Your task to perform on an android device: toggle improve location accuracy Image 0: 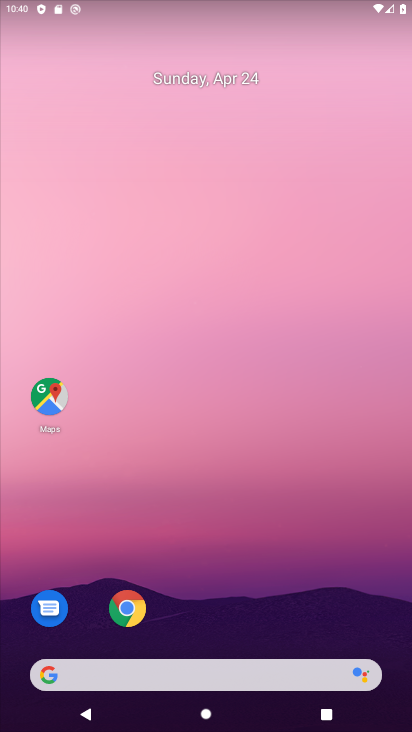
Step 0: drag from (392, 635) to (332, 76)
Your task to perform on an android device: toggle improve location accuracy Image 1: 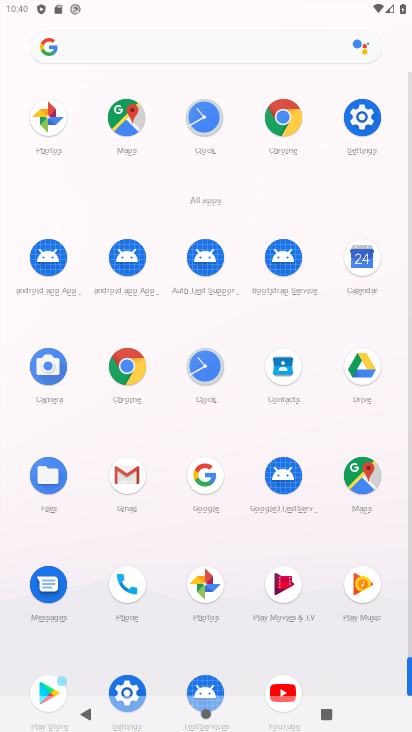
Step 1: drag from (407, 643) to (410, 595)
Your task to perform on an android device: toggle improve location accuracy Image 2: 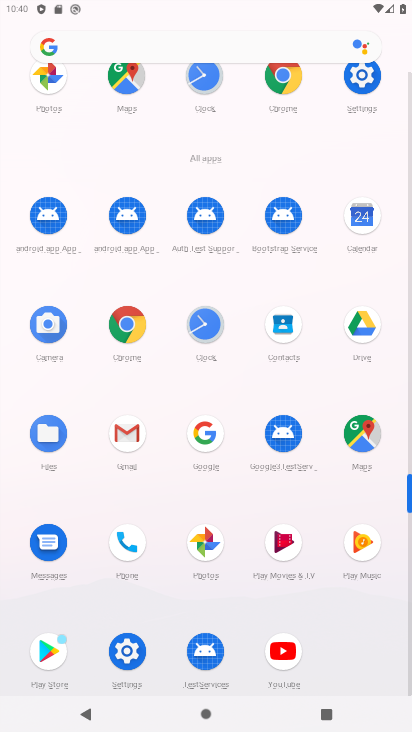
Step 2: click (124, 648)
Your task to perform on an android device: toggle improve location accuracy Image 3: 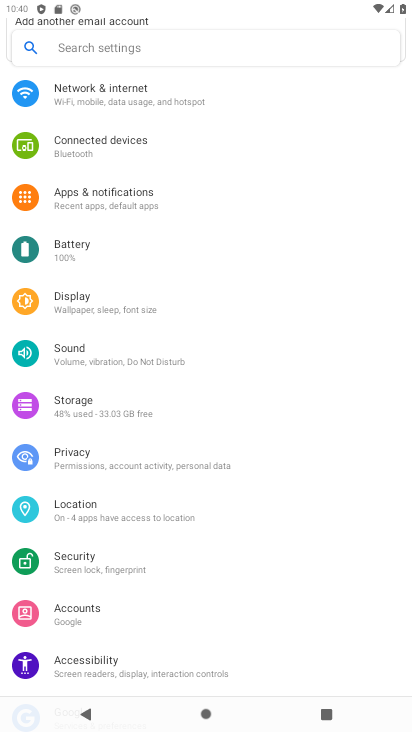
Step 3: click (69, 505)
Your task to perform on an android device: toggle improve location accuracy Image 4: 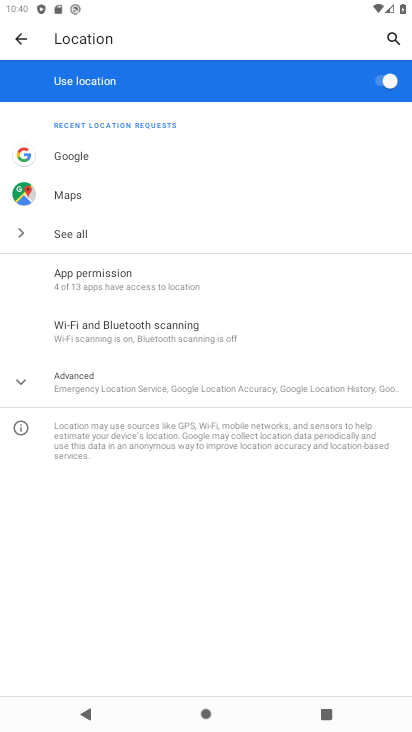
Step 4: click (13, 374)
Your task to perform on an android device: toggle improve location accuracy Image 5: 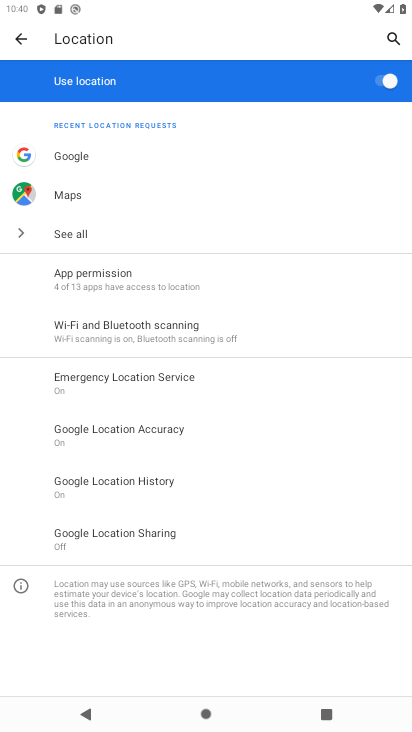
Step 5: click (104, 429)
Your task to perform on an android device: toggle improve location accuracy Image 6: 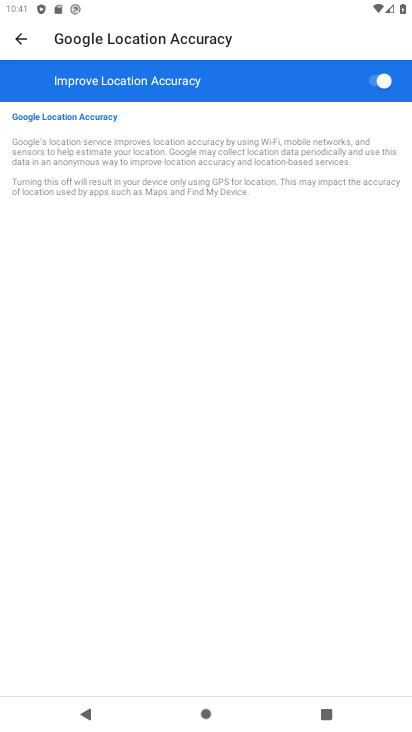
Step 6: click (369, 84)
Your task to perform on an android device: toggle improve location accuracy Image 7: 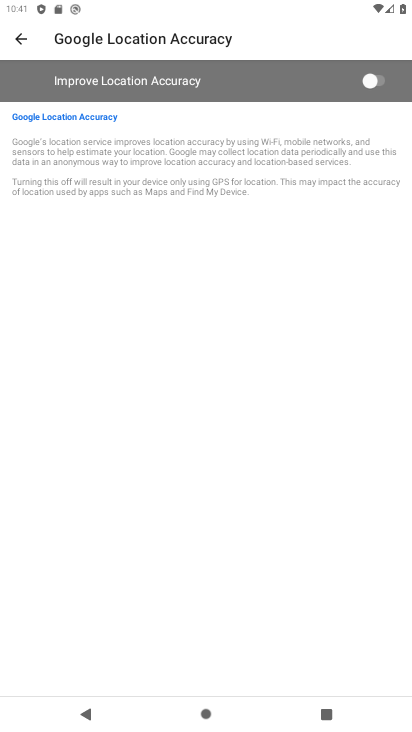
Step 7: task complete